Your task to perform on an android device: turn off notifications in google photos Image 0: 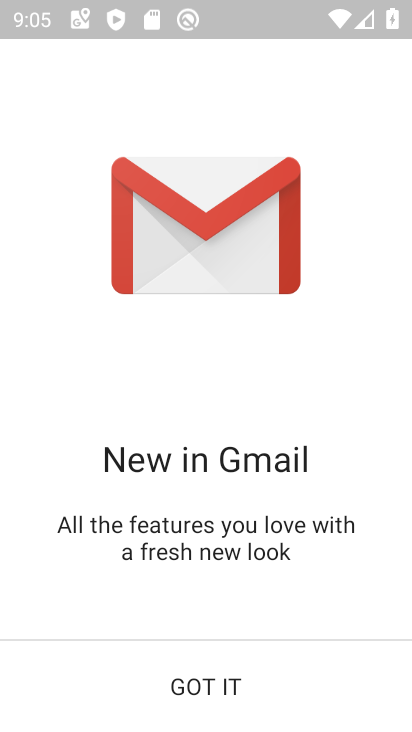
Step 0: press home button
Your task to perform on an android device: turn off notifications in google photos Image 1: 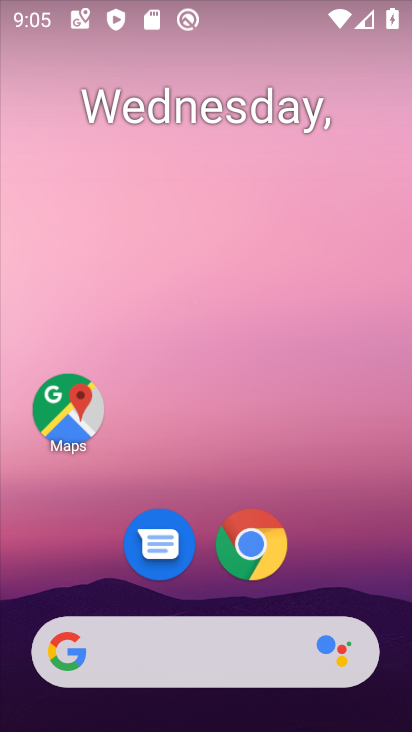
Step 1: drag from (202, 536) to (222, 78)
Your task to perform on an android device: turn off notifications in google photos Image 2: 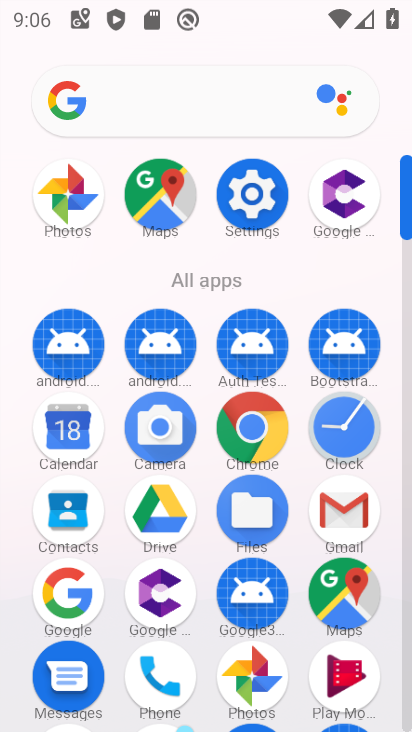
Step 2: click (245, 679)
Your task to perform on an android device: turn off notifications in google photos Image 3: 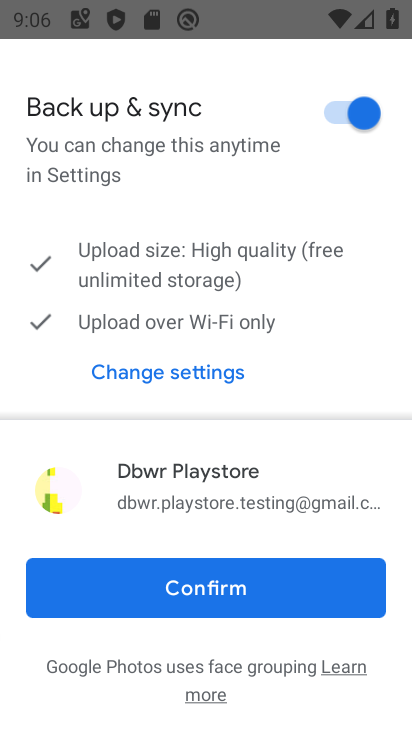
Step 3: click (186, 572)
Your task to perform on an android device: turn off notifications in google photos Image 4: 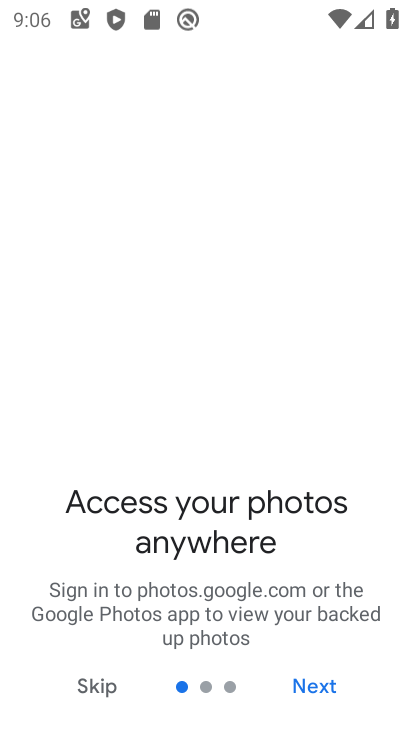
Step 4: click (314, 692)
Your task to perform on an android device: turn off notifications in google photos Image 5: 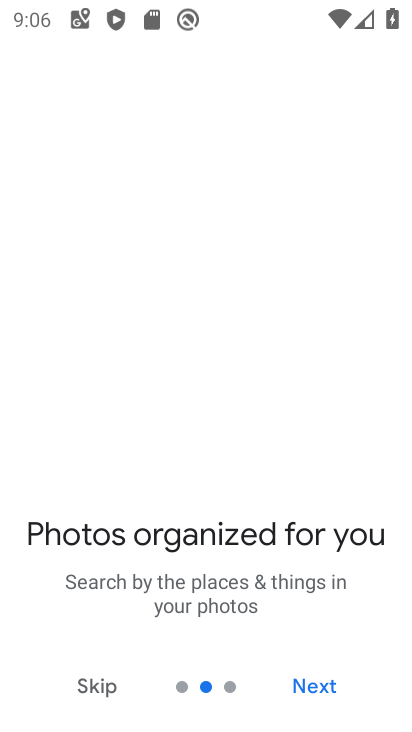
Step 5: click (314, 692)
Your task to perform on an android device: turn off notifications in google photos Image 6: 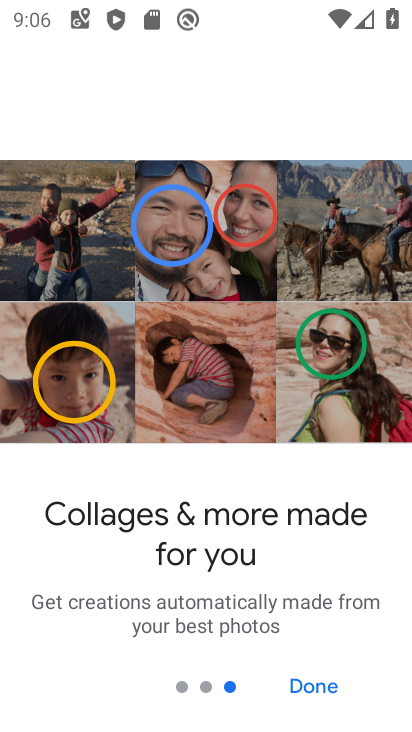
Step 6: click (314, 692)
Your task to perform on an android device: turn off notifications in google photos Image 7: 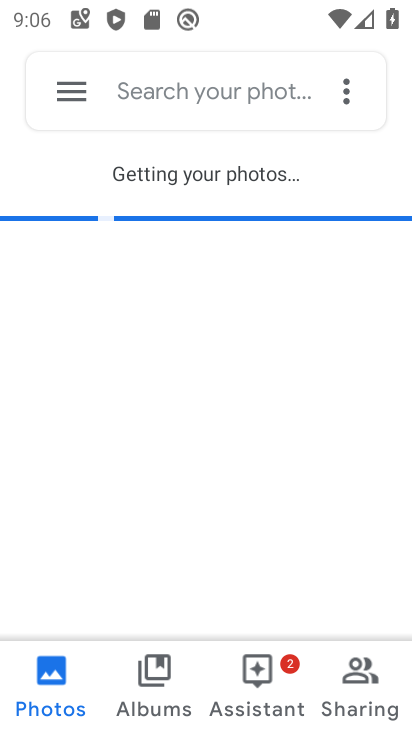
Step 7: click (57, 89)
Your task to perform on an android device: turn off notifications in google photos Image 8: 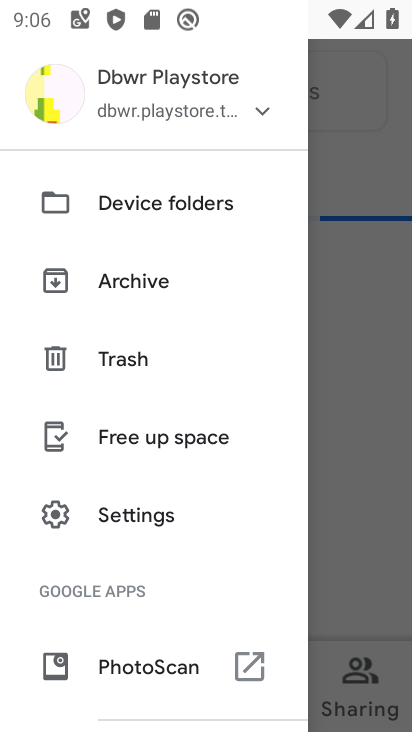
Step 8: click (95, 527)
Your task to perform on an android device: turn off notifications in google photos Image 9: 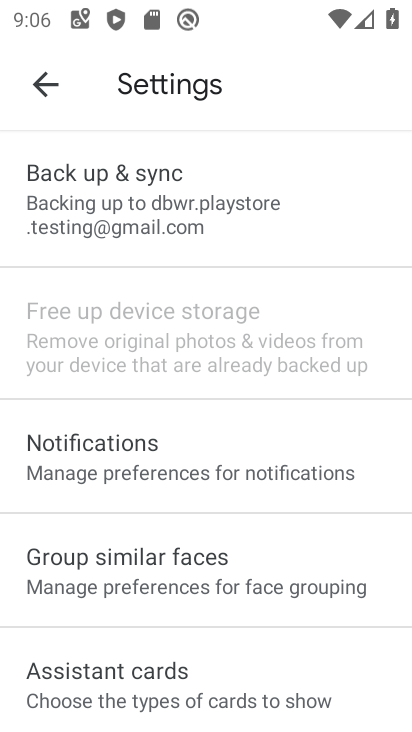
Step 9: click (95, 479)
Your task to perform on an android device: turn off notifications in google photos Image 10: 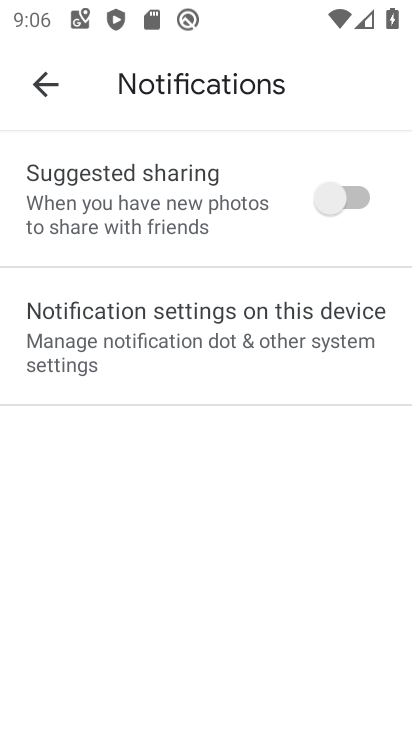
Step 10: click (184, 343)
Your task to perform on an android device: turn off notifications in google photos Image 11: 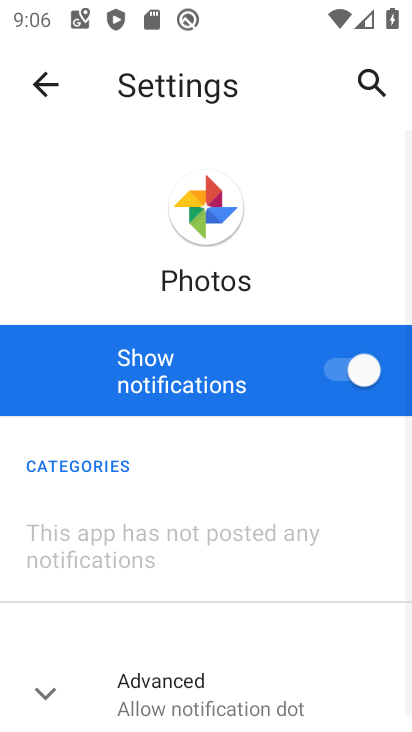
Step 11: click (356, 375)
Your task to perform on an android device: turn off notifications in google photos Image 12: 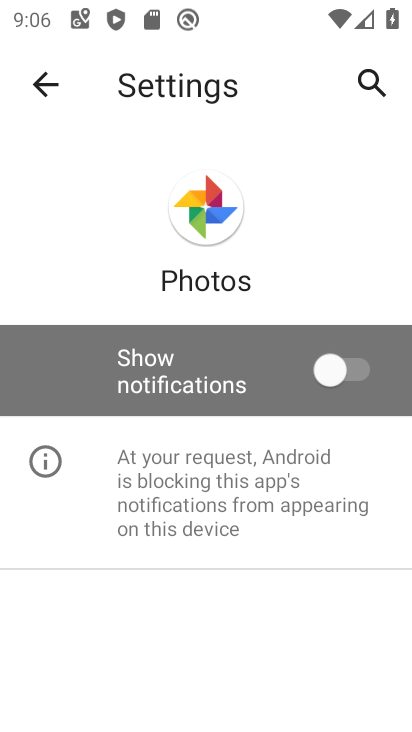
Step 12: task complete